Your task to perform on an android device: turn off location history Image 0: 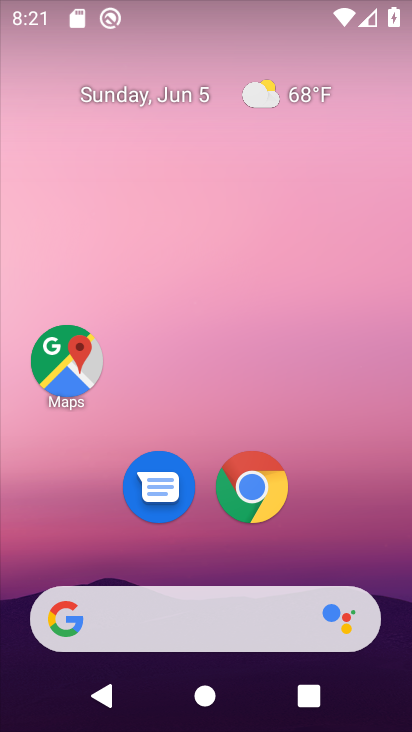
Step 0: drag from (223, 524) to (290, 120)
Your task to perform on an android device: turn off location history Image 1: 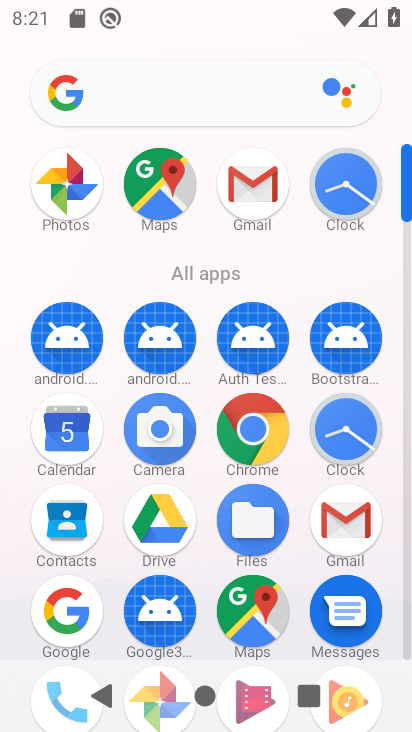
Step 1: drag from (230, 459) to (239, 233)
Your task to perform on an android device: turn off location history Image 2: 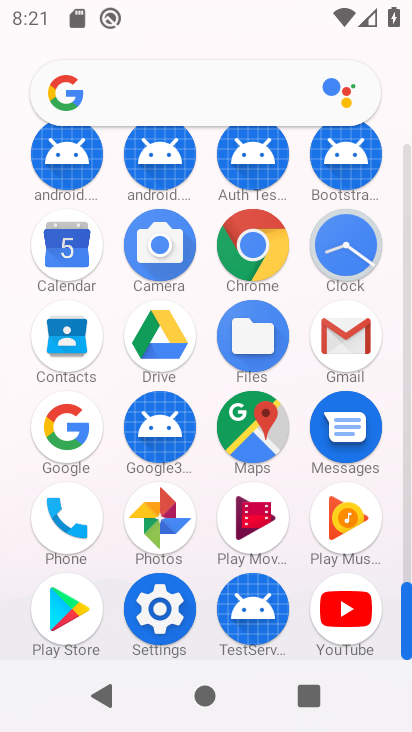
Step 2: click (171, 622)
Your task to perform on an android device: turn off location history Image 3: 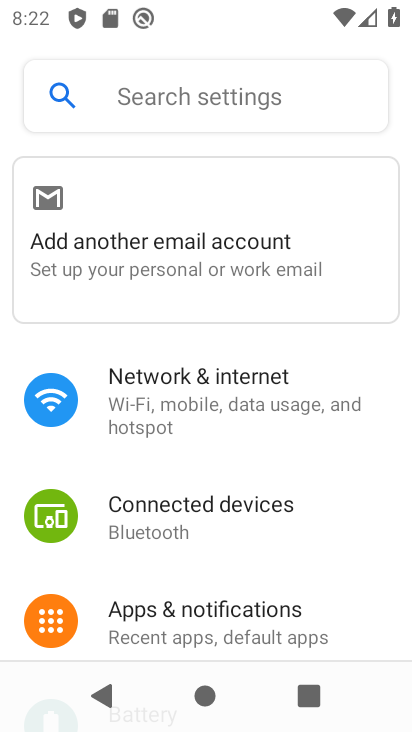
Step 3: drag from (208, 532) to (211, 234)
Your task to perform on an android device: turn off location history Image 4: 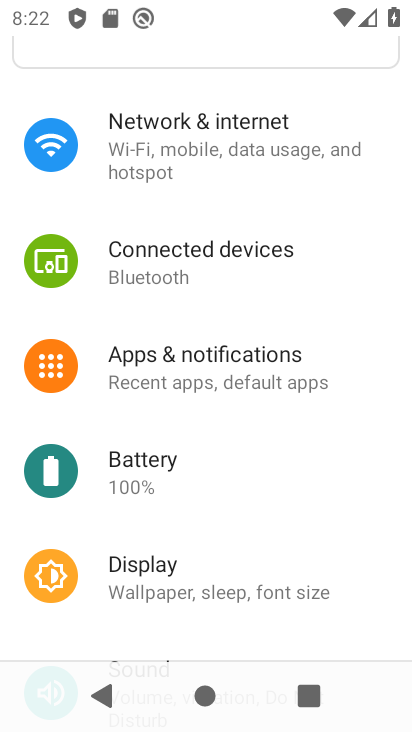
Step 4: drag from (158, 452) to (197, 227)
Your task to perform on an android device: turn off location history Image 5: 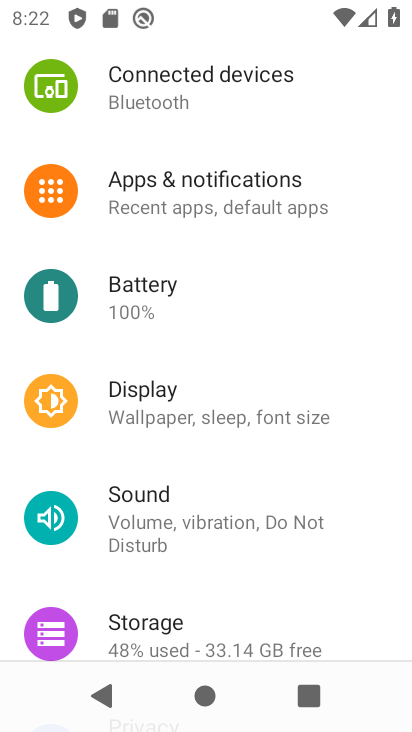
Step 5: drag from (202, 540) to (233, 241)
Your task to perform on an android device: turn off location history Image 6: 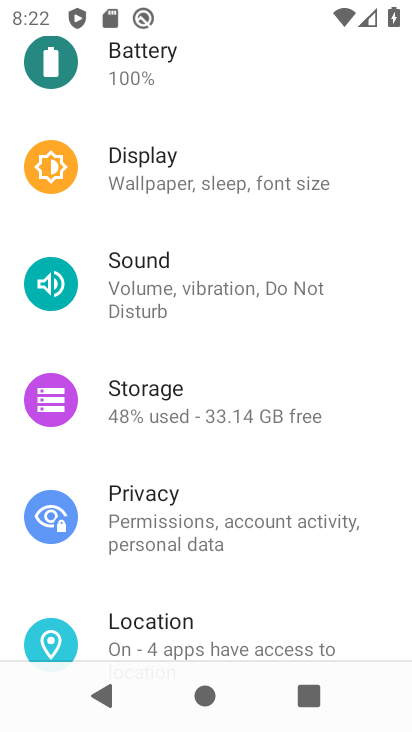
Step 6: click (219, 634)
Your task to perform on an android device: turn off location history Image 7: 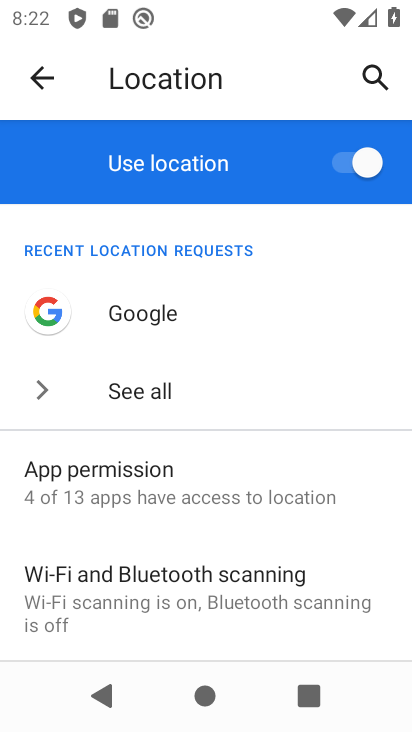
Step 7: drag from (188, 542) to (236, 276)
Your task to perform on an android device: turn off location history Image 8: 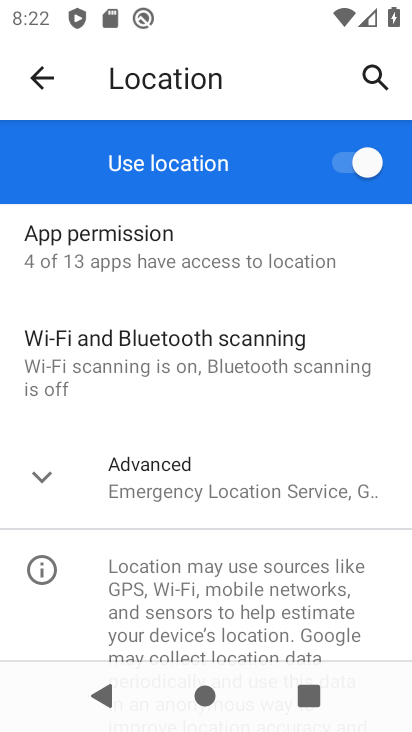
Step 8: click (176, 495)
Your task to perform on an android device: turn off location history Image 9: 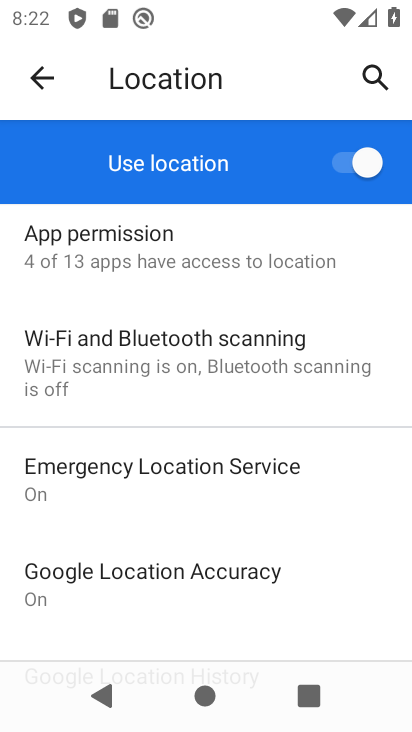
Step 9: drag from (188, 512) to (257, 221)
Your task to perform on an android device: turn off location history Image 10: 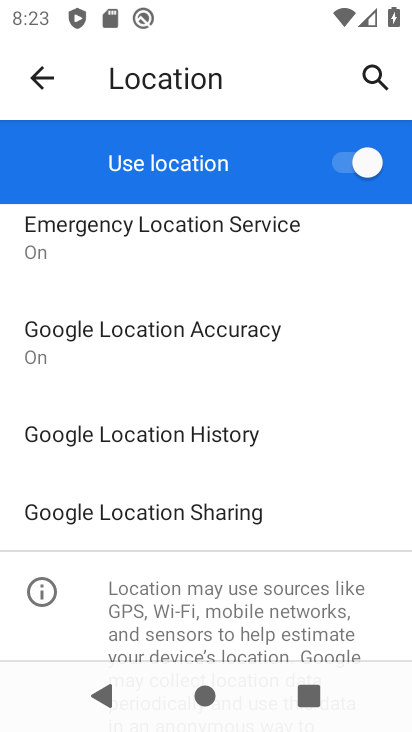
Step 10: click (211, 432)
Your task to perform on an android device: turn off location history Image 11: 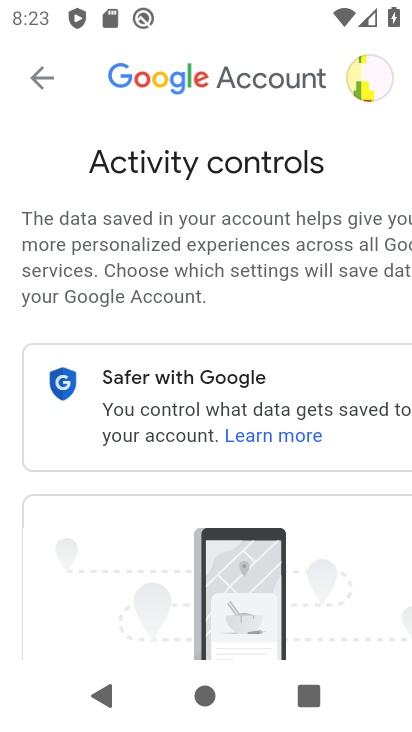
Step 11: task complete